Your task to perform on an android device: Search for sushi restaurants on Maps Image 0: 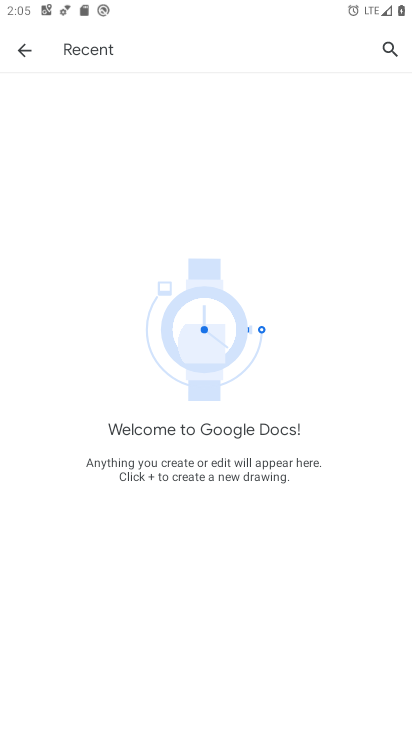
Step 0: press home button
Your task to perform on an android device: Search for sushi restaurants on Maps Image 1: 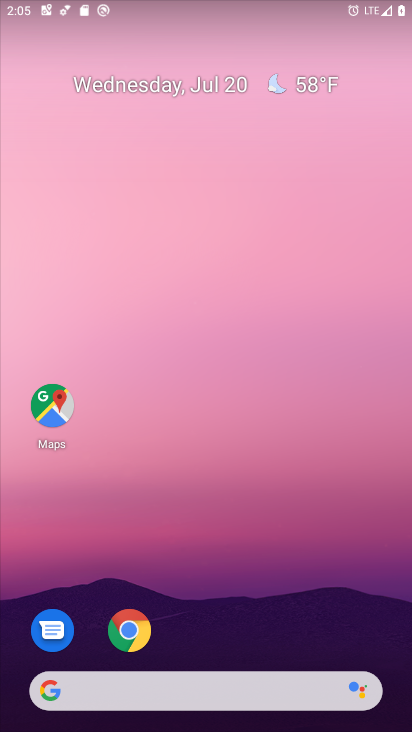
Step 1: drag from (233, 646) to (286, 128)
Your task to perform on an android device: Search for sushi restaurants on Maps Image 2: 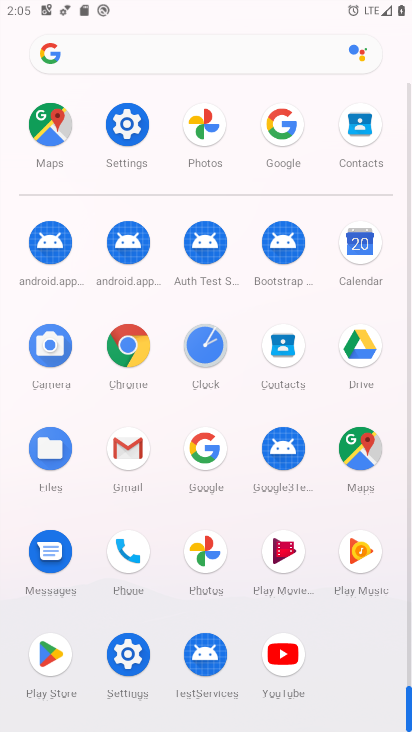
Step 2: drag from (209, 539) to (245, 249)
Your task to perform on an android device: Search for sushi restaurants on Maps Image 3: 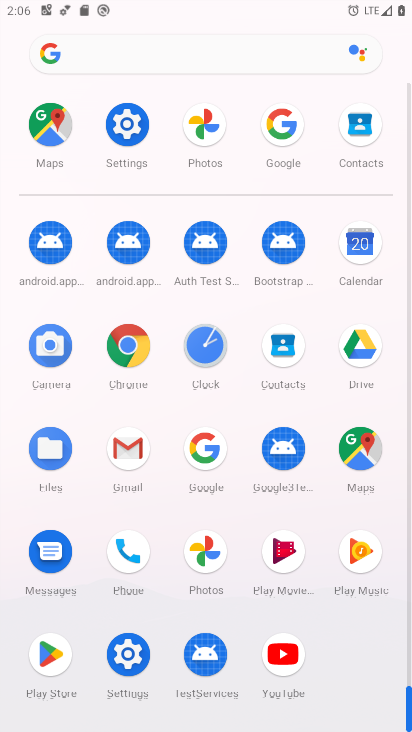
Step 3: click (366, 469)
Your task to perform on an android device: Search for sushi restaurants on Maps Image 4: 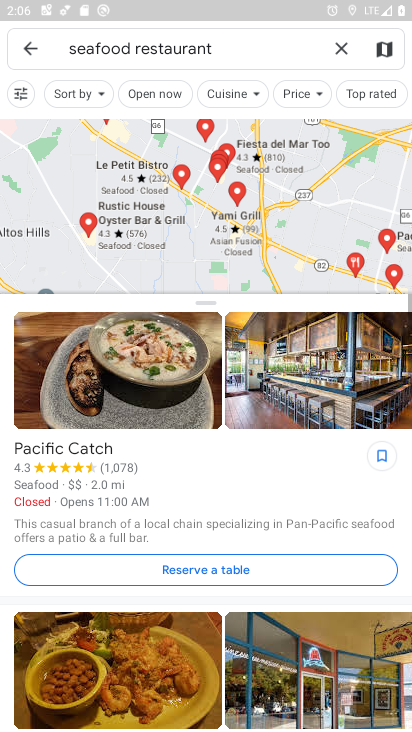
Step 4: drag from (367, 467) to (409, 536)
Your task to perform on an android device: Search for sushi restaurants on Maps Image 5: 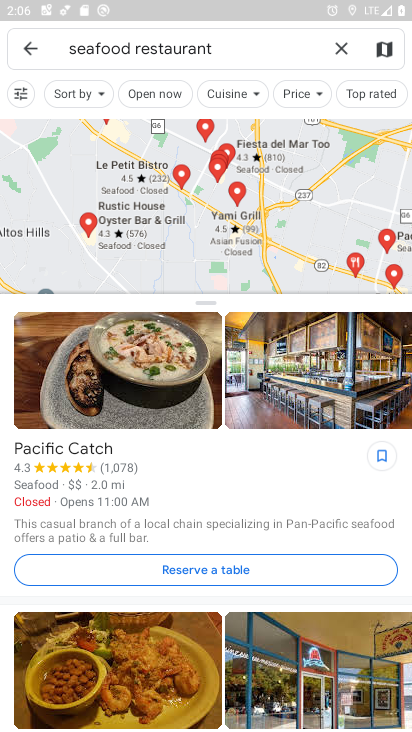
Step 5: click (322, 60)
Your task to perform on an android device: Search for sushi restaurants on Maps Image 6: 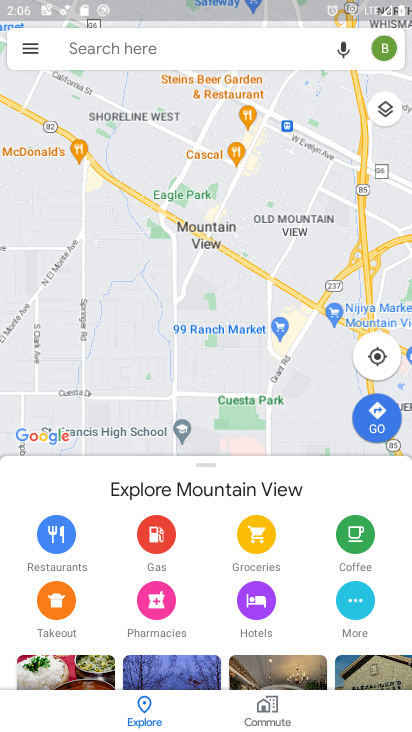
Step 6: click (138, 49)
Your task to perform on an android device: Search for sushi restaurants on Maps Image 7: 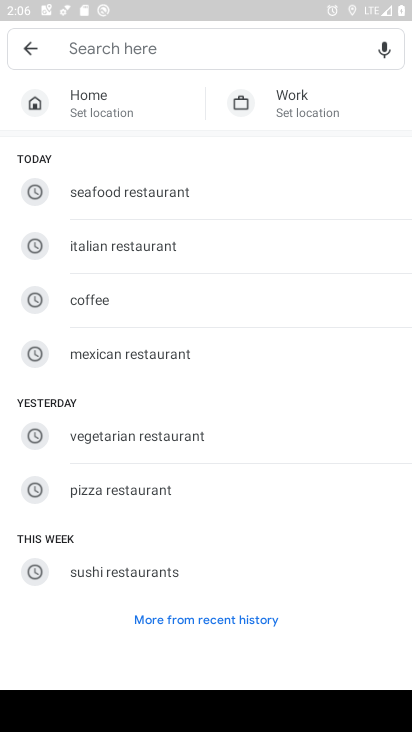
Step 7: click (123, 576)
Your task to perform on an android device: Search for sushi restaurants on Maps Image 8: 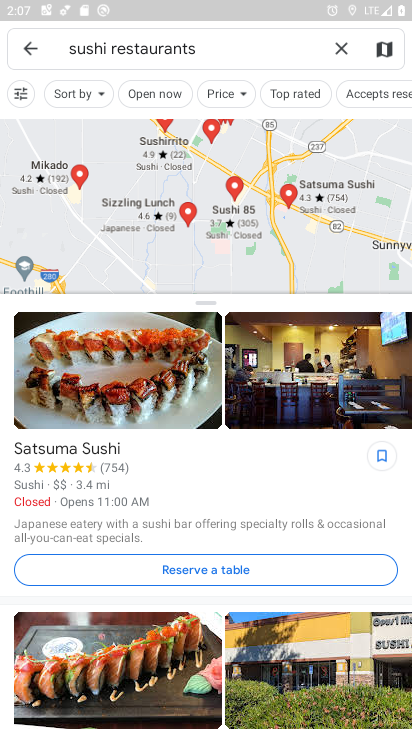
Step 8: task complete